Your task to perform on an android device: Go to battery settings Image 0: 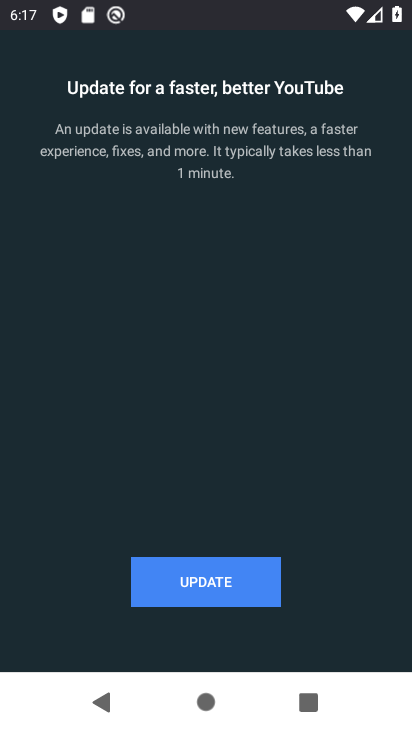
Step 0: press home button
Your task to perform on an android device: Go to battery settings Image 1: 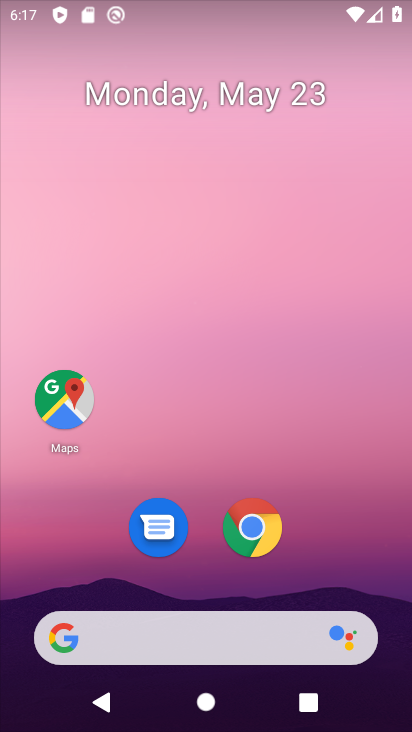
Step 1: drag from (346, 483) to (352, 177)
Your task to perform on an android device: Go to battery settings Image 2: 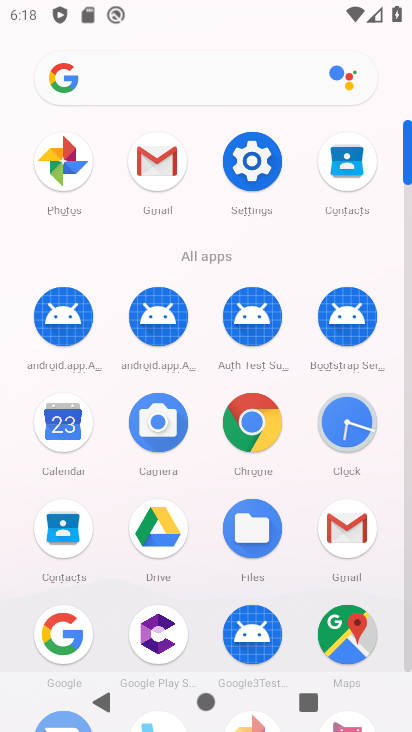
Step 2: click (256, 168)
Your task to perform on an android device: Go to battery settings Image 3: 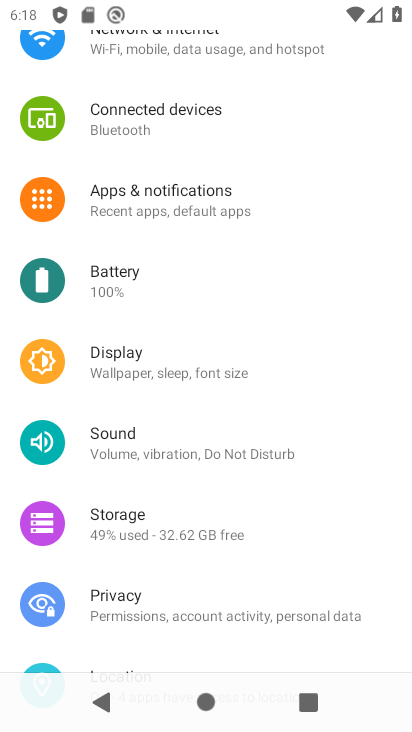
Step 3: task complete